Your task to perform on an android device: toggle data saver in the chrome app Image 0: 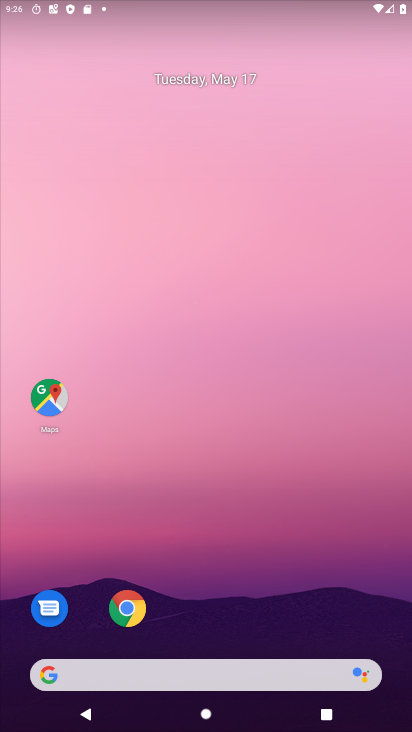
Step 0: drag from (327, 594) to (329, 184)
Your task to perform on an android device: toggle data saver in the chrome app Image 1: 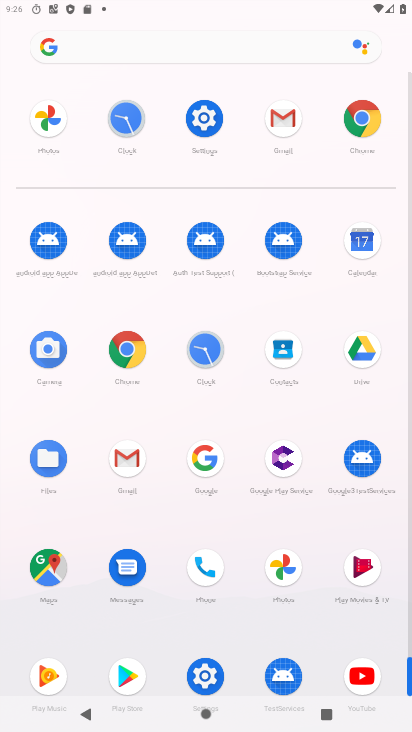
Step 1: click (128, 361)
Your task to perform on an android device: toggle data saver in the chrome app Image 2: 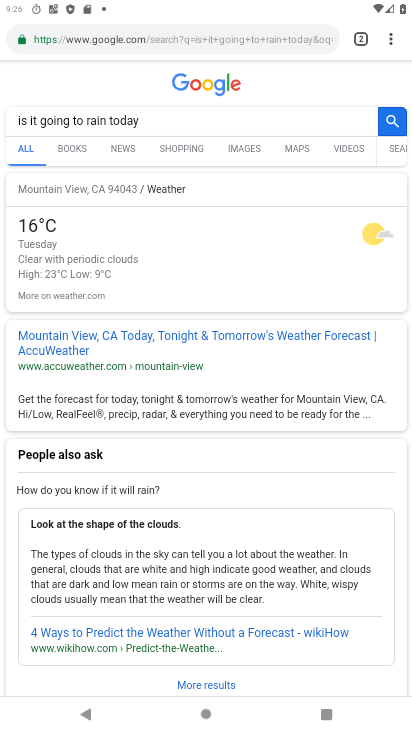
Step 2: drag from (394, 43) to (248, 437)
Your task to perform on an android device: toggle data saver in the chrome app Image 3: 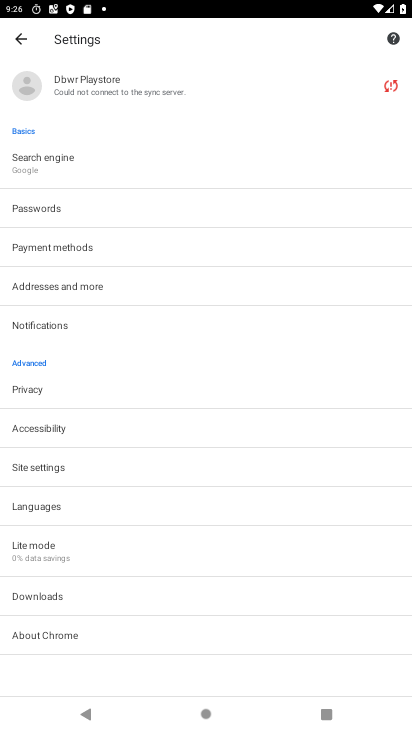
Step 3: click (77, 547)
Your task to perform on an android device: toggle data saver in the chrome app Image 4: 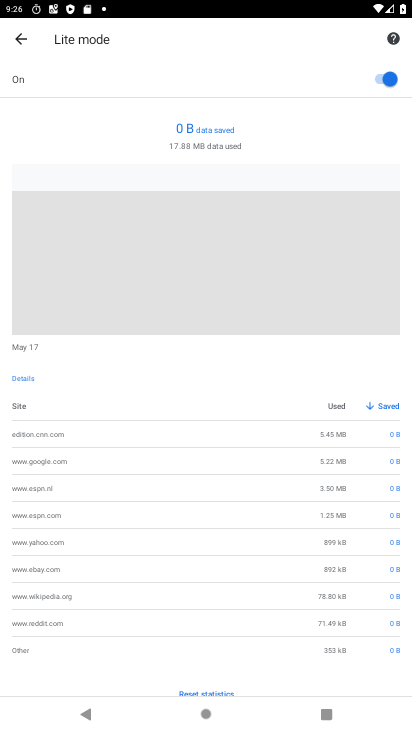
Step 4: click (384, 84)
Your task to perform on an android device: toggle data saver in the chrome app Image 5: 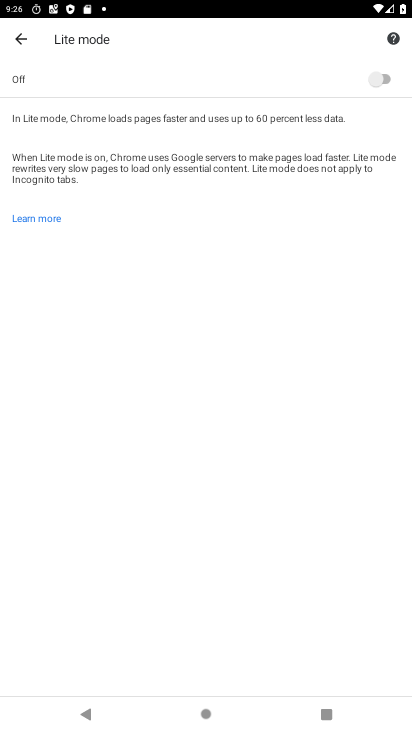
Step 5: task complete